Your task to perform on an android device: Open wifi settings Image 0: 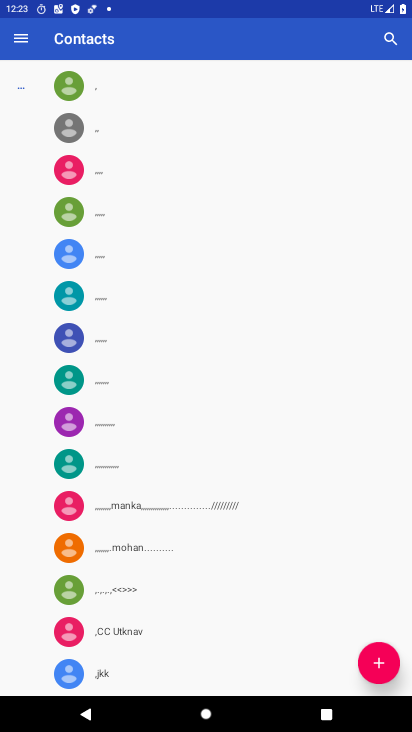
Step 0: press home button
Your task to perform on an android device: Open wifi settings Image 1: 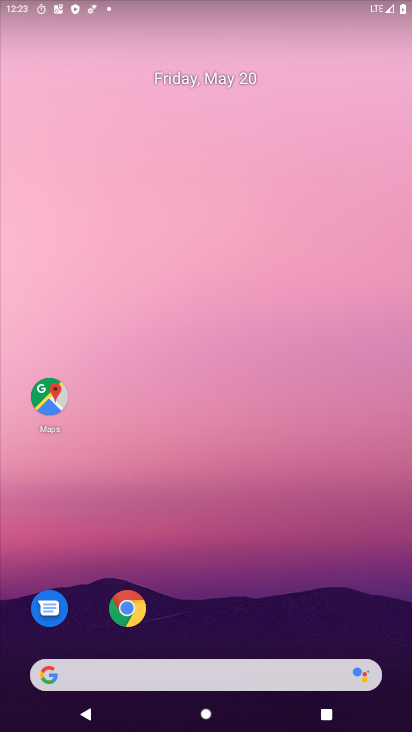
Step 1: drag from (352, 559) to (345, 136)
Your task to perform on an android device: Open wifi settings Image 2: 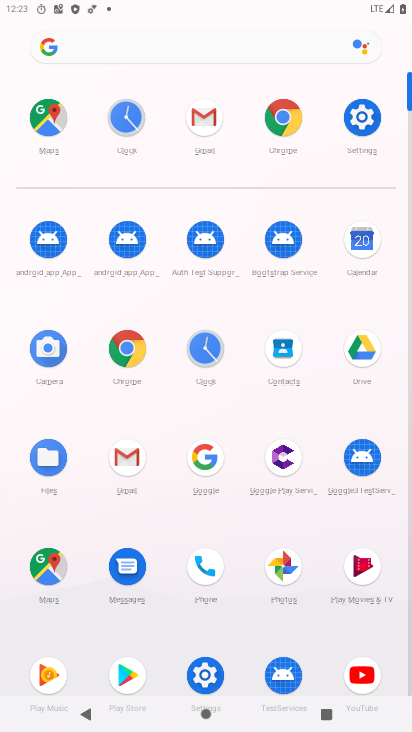
Step 2: click (356, 120)
Your task to perform on an android device: Open wifi settings Image 3: 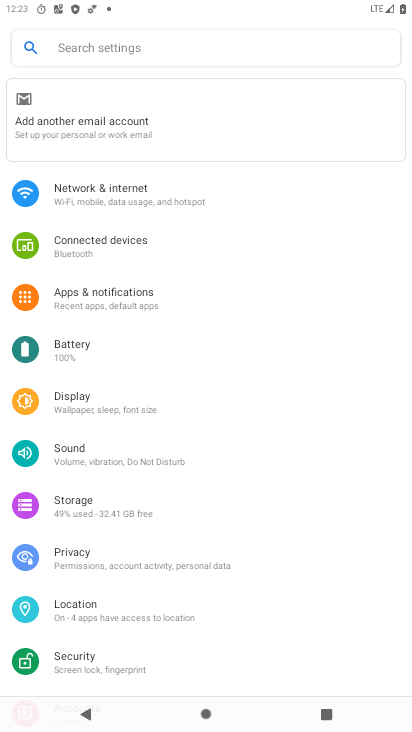
Step 3: click (152, 196)
Your task to perform on an android device: Open wifi settings Image 4: 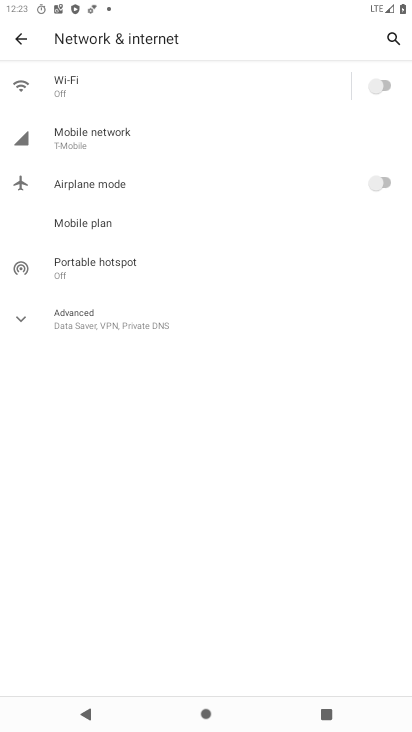
Step 4: click (195, 78)
Your task to perform on an android device: Open wifi settings Image 5: 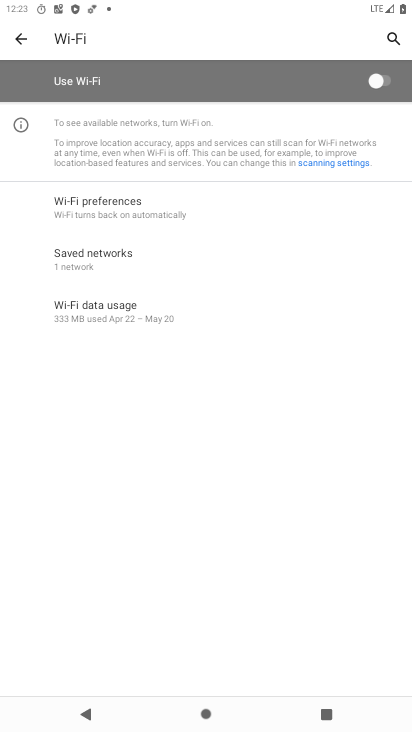
Step 5: task complete